Your task to perform on an android device: Open settings Image 0: 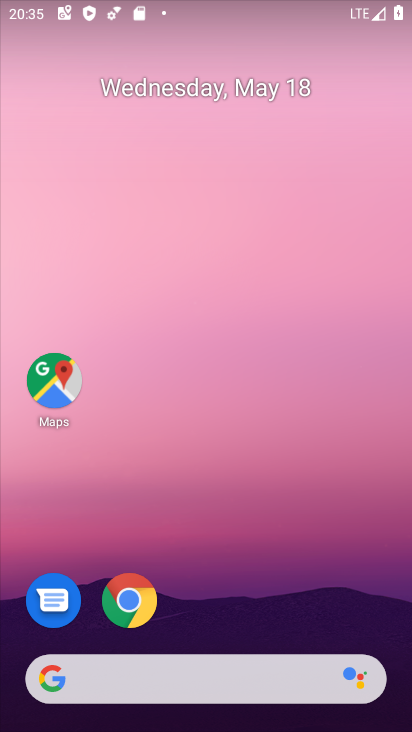
Step 0: drag from (213, 633) to (322, 2)
Your task to perform on an android device: Open settings Image 1: 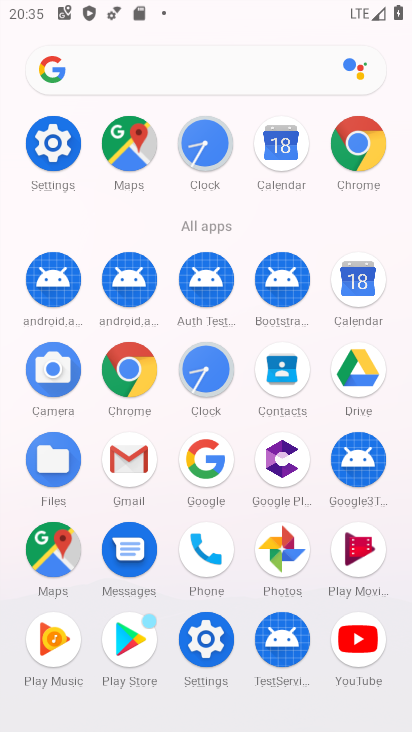
Step 1: click (60, 150)
Your task to perform on an android device: Open settings Image 2: 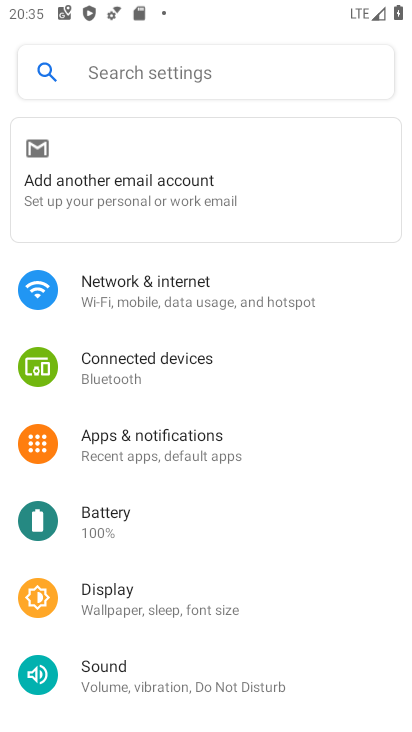
Step 2: task complete